Your task to perform on an android device: Open Google Chrome and click the shortcut for Amazon.com Image 0: 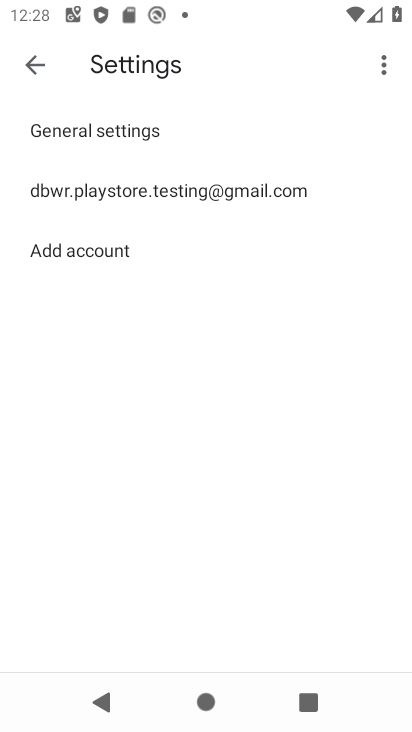
Step 0: press home button
Your task to perform on an android device: Open Google Chrome and click the shortcut for Amazon.com Image 1: 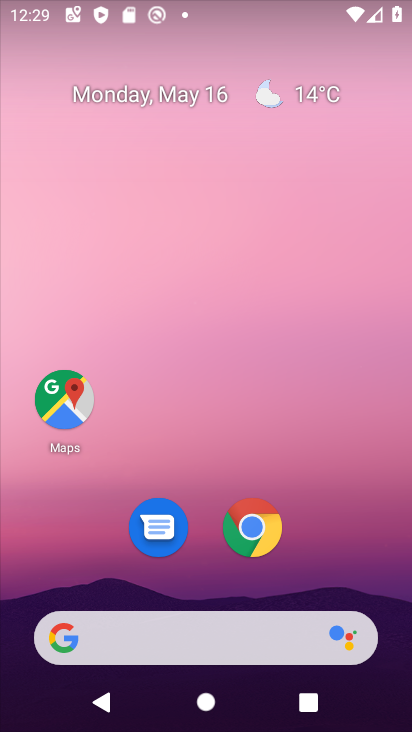
Step 1: click (267, 532)
Your task to perform on an android device: Open Google Chrome and click the shortcut for Amazon.com Image 2: 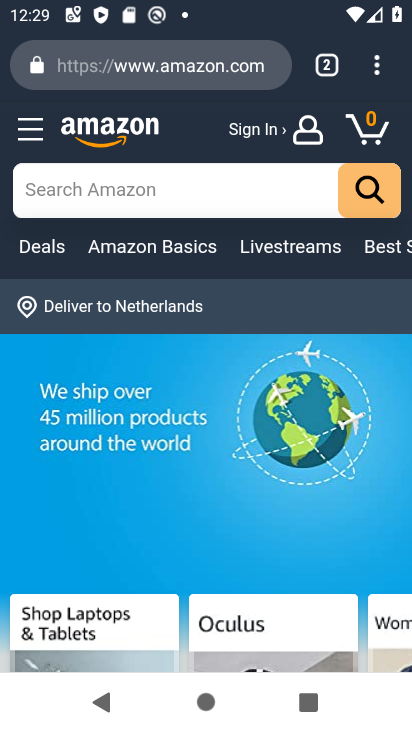
Step 2: click (378, 65)
Your task to perform on an android device: Open Google Chrome and click the shortcut for Amazon.com Image 3: 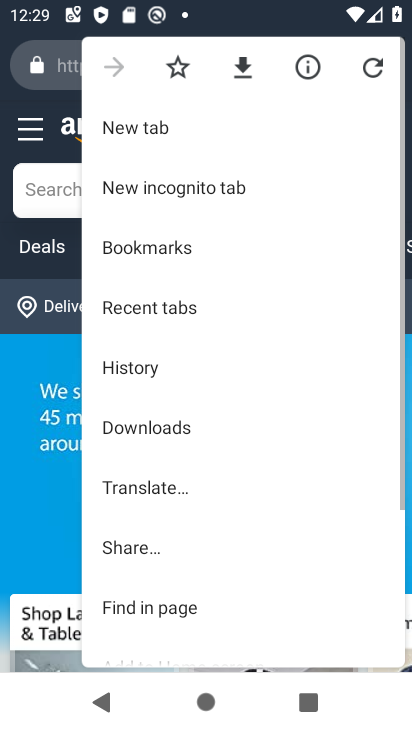
Step 3: click (135, 135)
Your task to perform on an android device: Open Google Chrome and click the shortcut for Amazon.com Image 4: 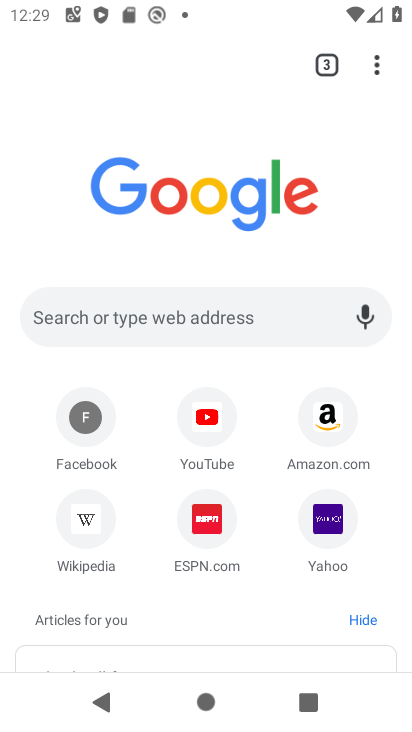
Step 4: click (341, 427)
Your task to perform on an android device: Open Google Chrome and click the shortcut for Amazon.com Image 5: 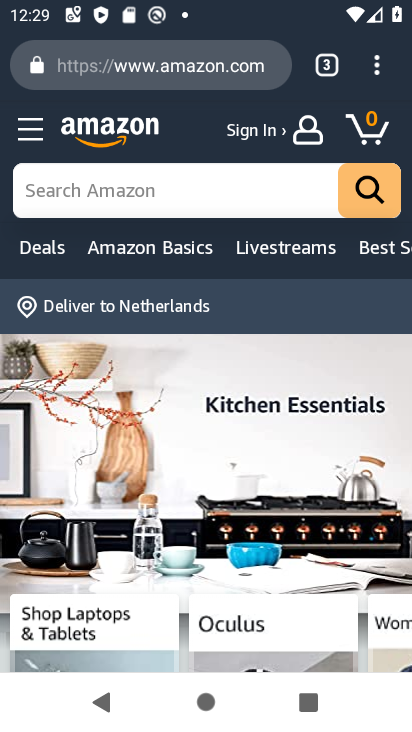
Step 5: task complete